Your task to perform on an android device: Go to internet settings Image 0: 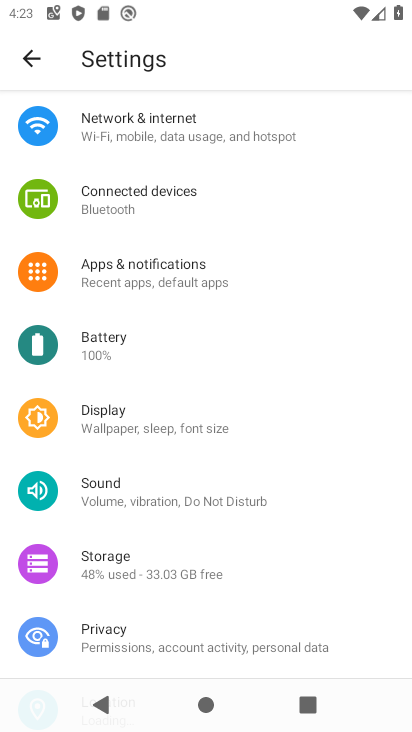
Step 0: press home button
Your task to perform on an android device: Go to internet settings Image 1: 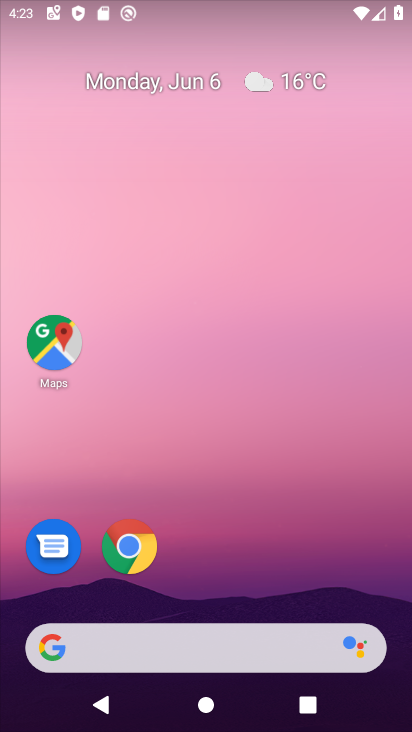
Step 1: drag from (226, 633) to (188, 7)
Your task to perform on an android device: Go to internet settings Image 2: 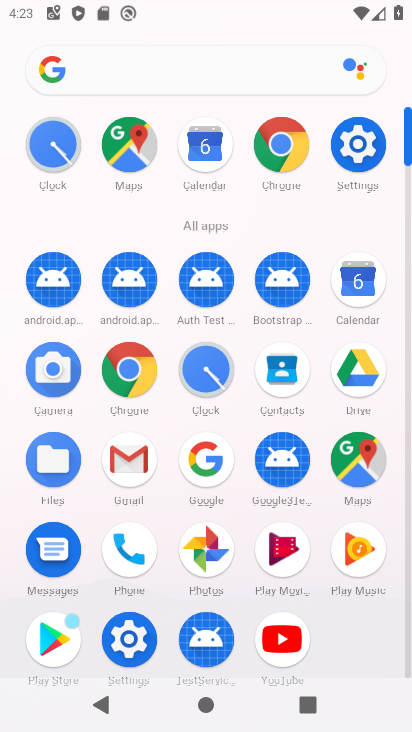
Step 2: click (356, 144)
Your task to perform on an android device: Go to internet settings Image 3: 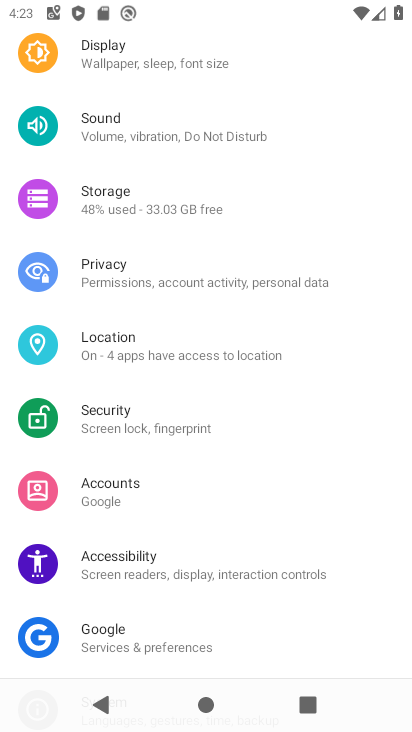
Step 3: drag from (213, 184) to (154, 681)
Your task to perform on an android device: Go to internet settings Image 4: 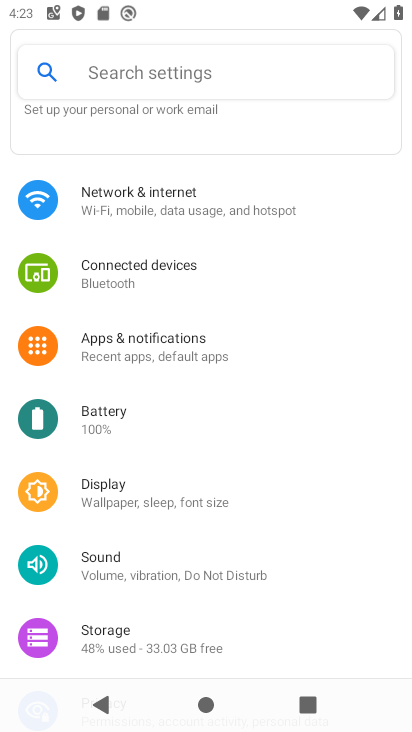
Step 4: click (184, 195)
Your task to perform on an android device: Go to internet settings Image 5: 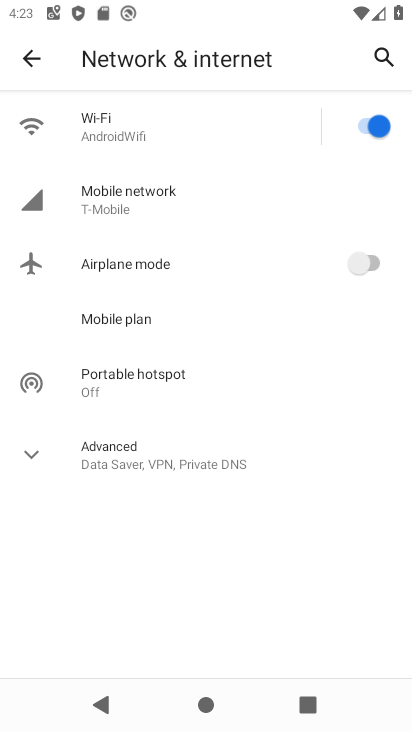
Step 5: click (183, 194)
Your task to perform on an android device: Go to internet settings Image 6: 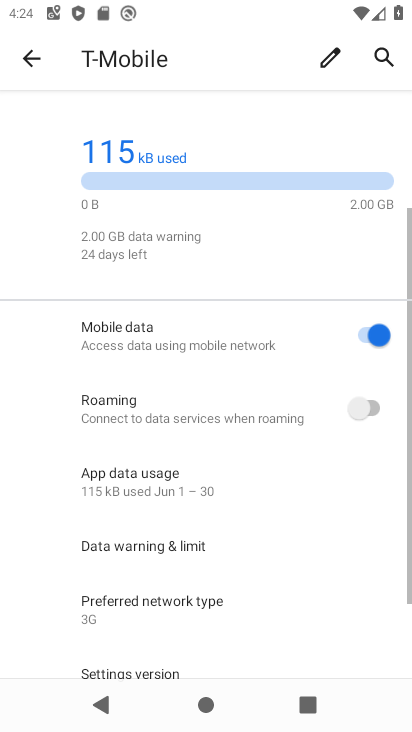
Step 6: task complete